Your task to perform on an android device: uninstall "Messages" Image 0: 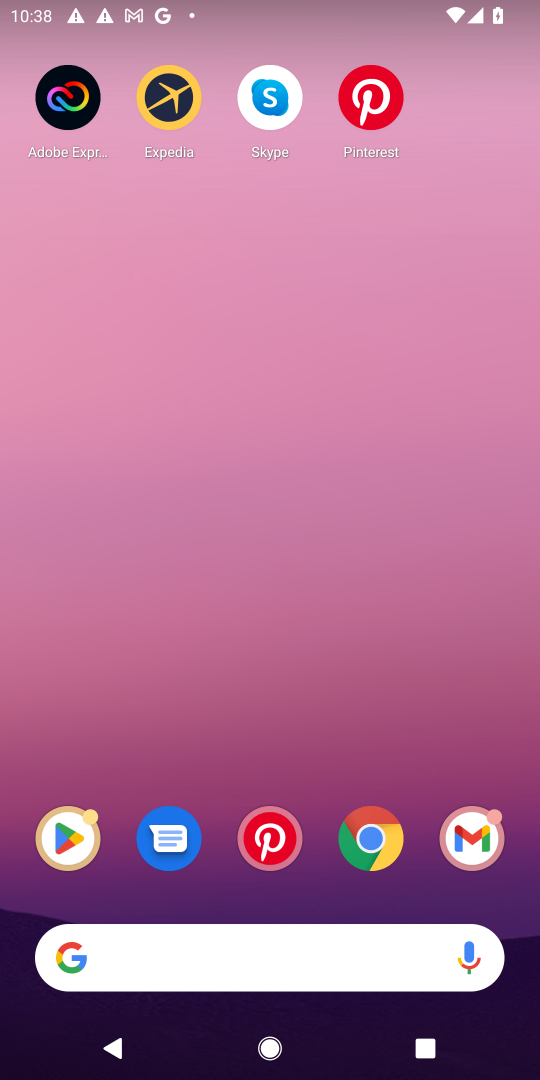
Step 0: press home button
Your task to perform on an android device: uninstall "Messages" Image 1: 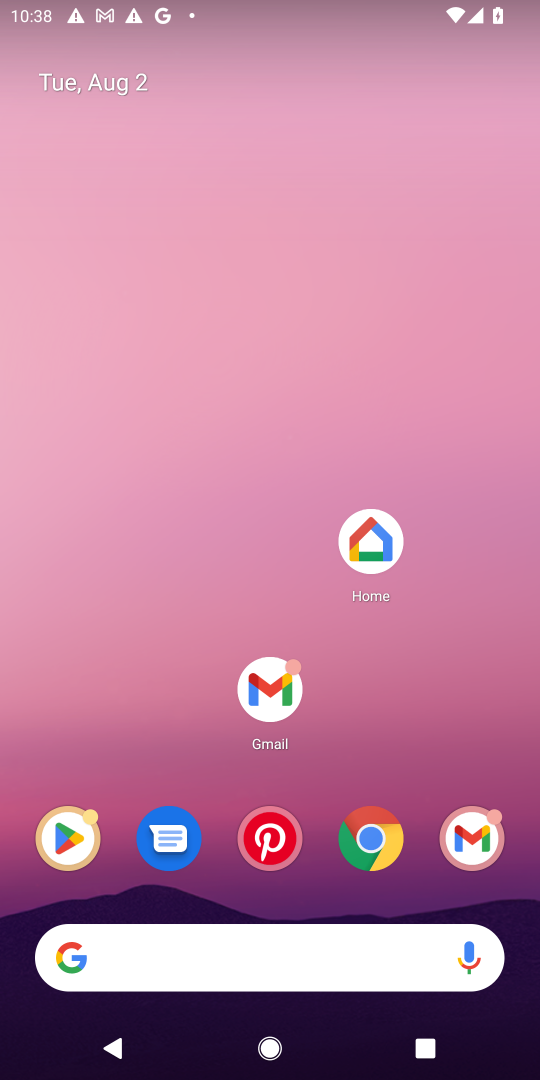
Step 1: drag from (167, 748) to (166, 71)
Your task to perform on an android device: uninstall "Messages" Image 2: 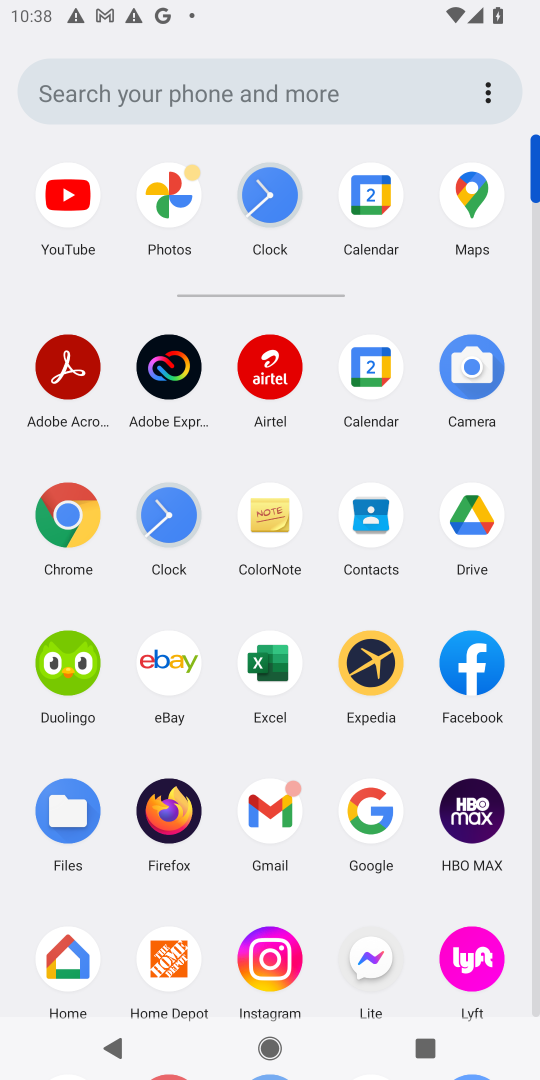
Step 2: drag from (209, 742) to (217, 375)
Your task to perform on an android device: uninstall "Messages" Image 3: 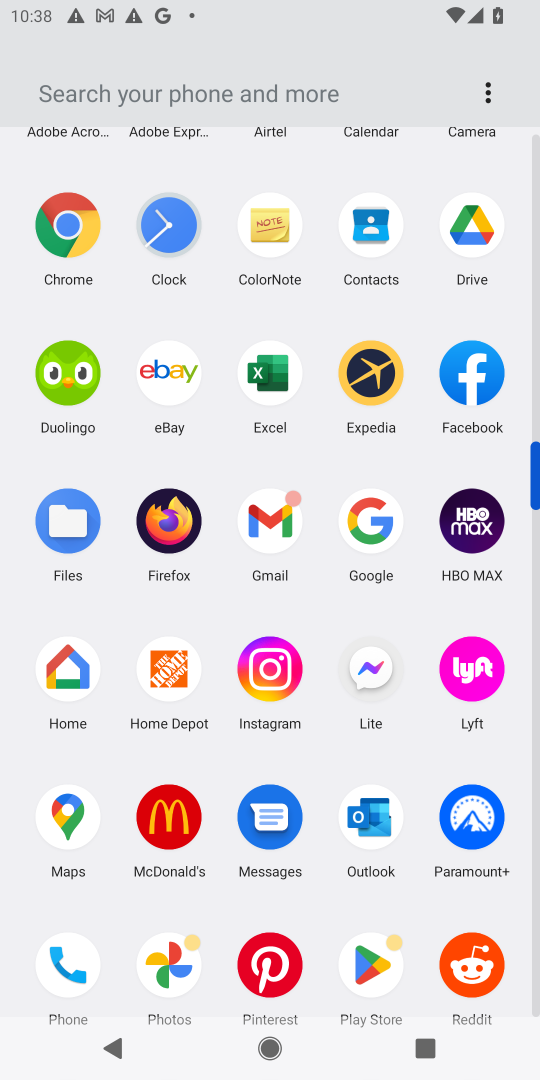
Step 3: drag from (212, 906) to (221, 576)
Your task to perform on an android device: uninstall "Messages" Image 4: 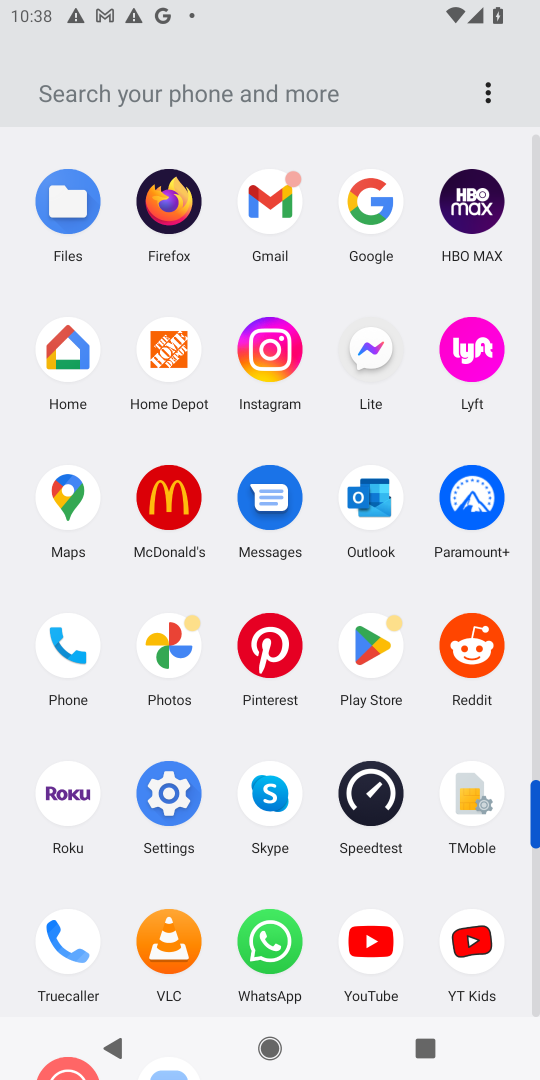
Step 4: drag from (211, 874) to (214, 581)
Your task to perform on an android device: uninstall "Messages" Image 5: 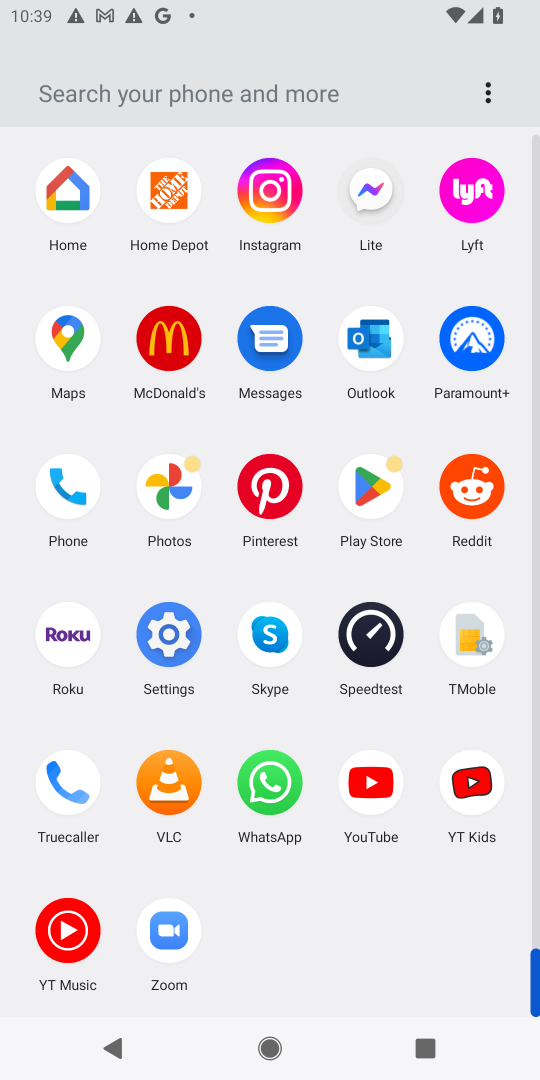
Step 5: click (369, 493)
Your task to perform on an android device: uninstall "Messages" Image 6: 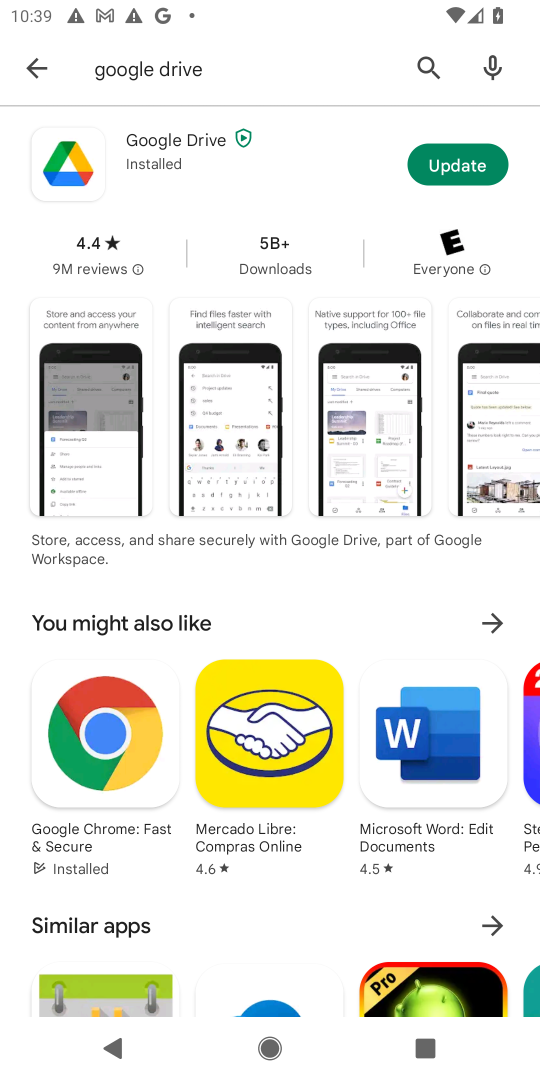
Step 6: click (421, 60)
Your task to perform on an android device: uninstall "Messages" Image 7: 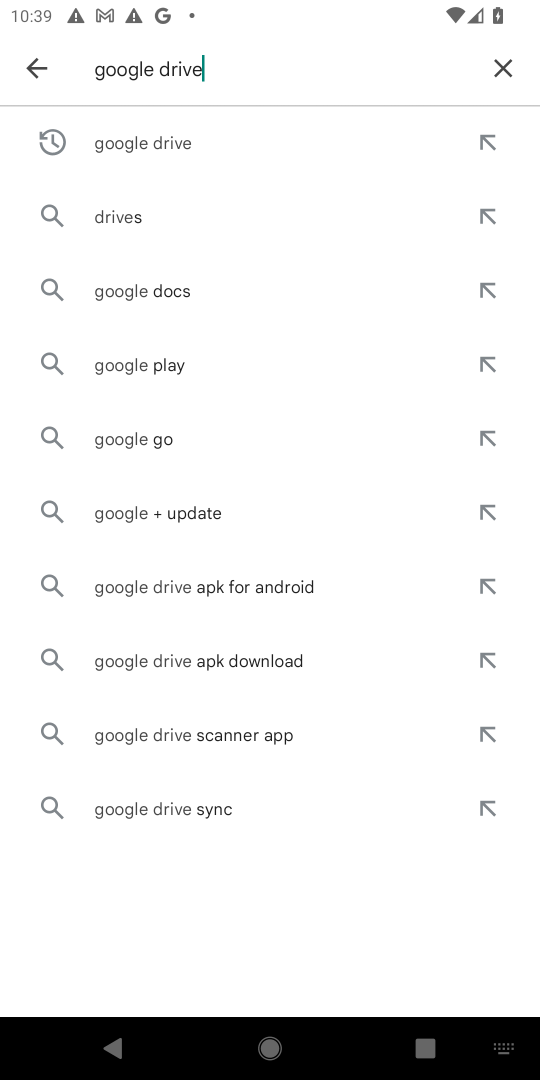
Step 7: click (509, 63)
Your task to perform on an android device: uninstall "Messages" Image 8: 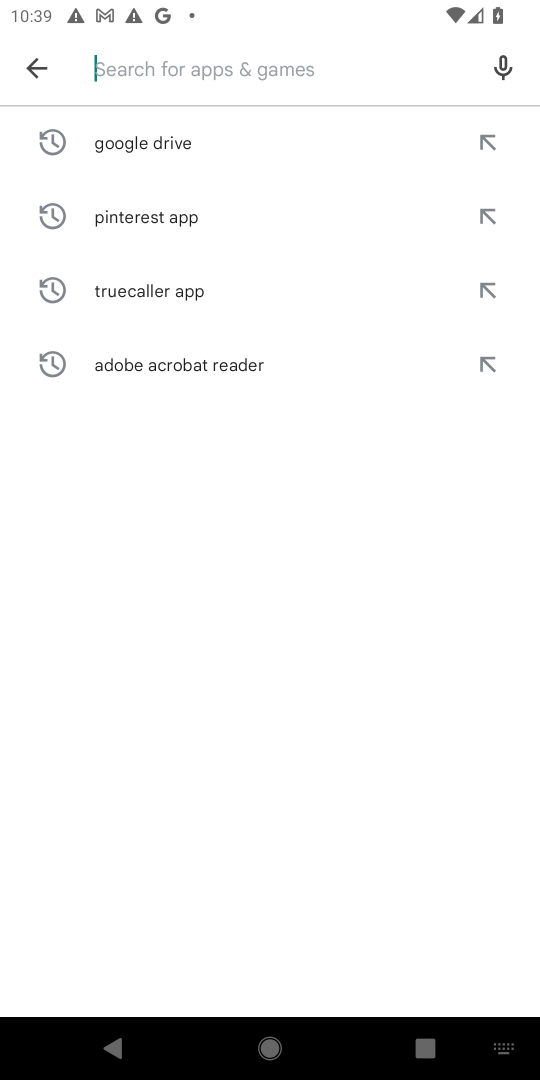
Step 8: type "messages"
Your task to perform on an android device: uninstall "Messages" Image 9: 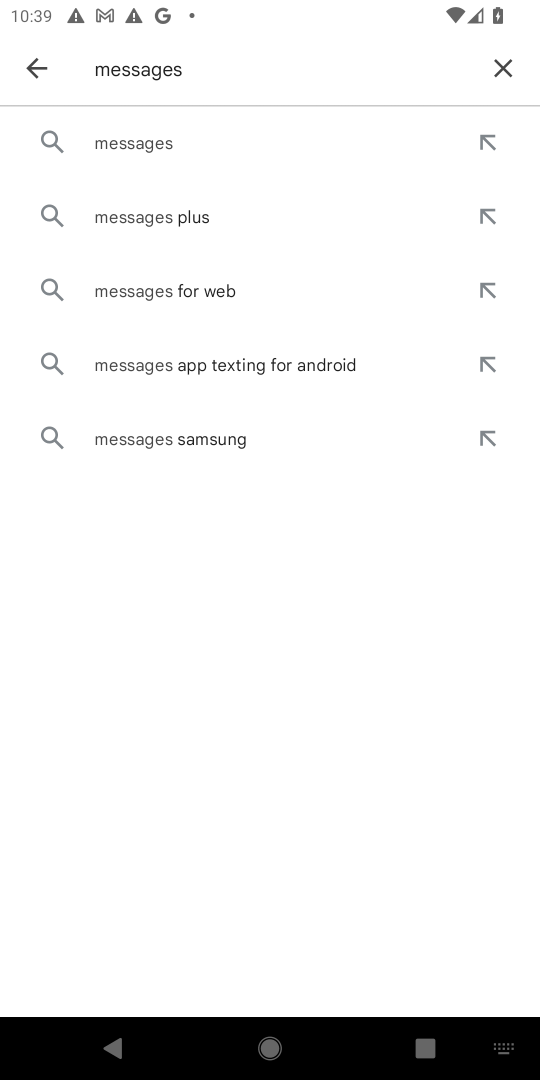
Step 9: click (204, 139)
Your task to perform on an android device: uninstall "Messages" Image 10: 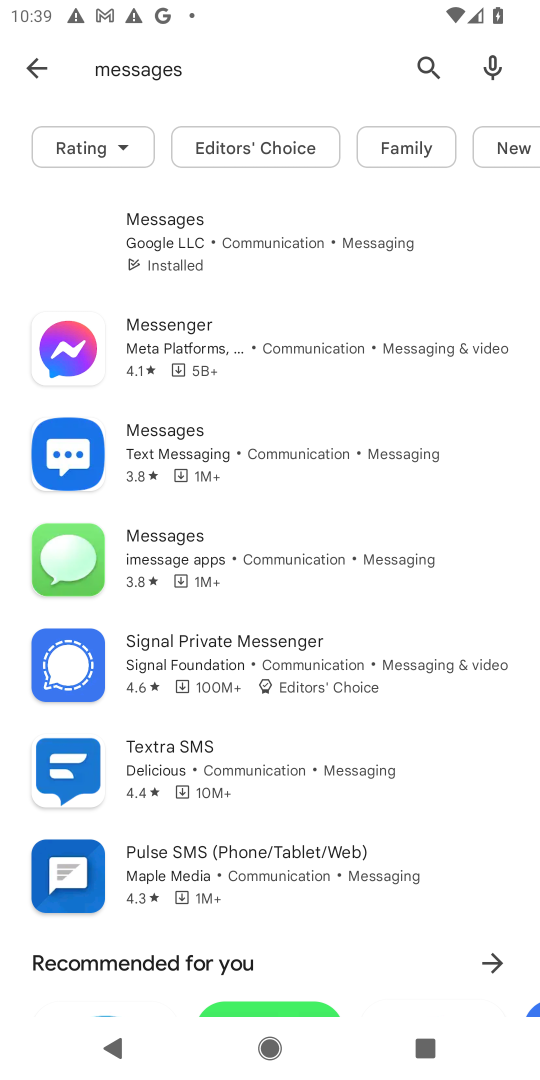
Step 10: click (283, 240)
Your task to perform on an android device: uninstall "Messages" Image 11: 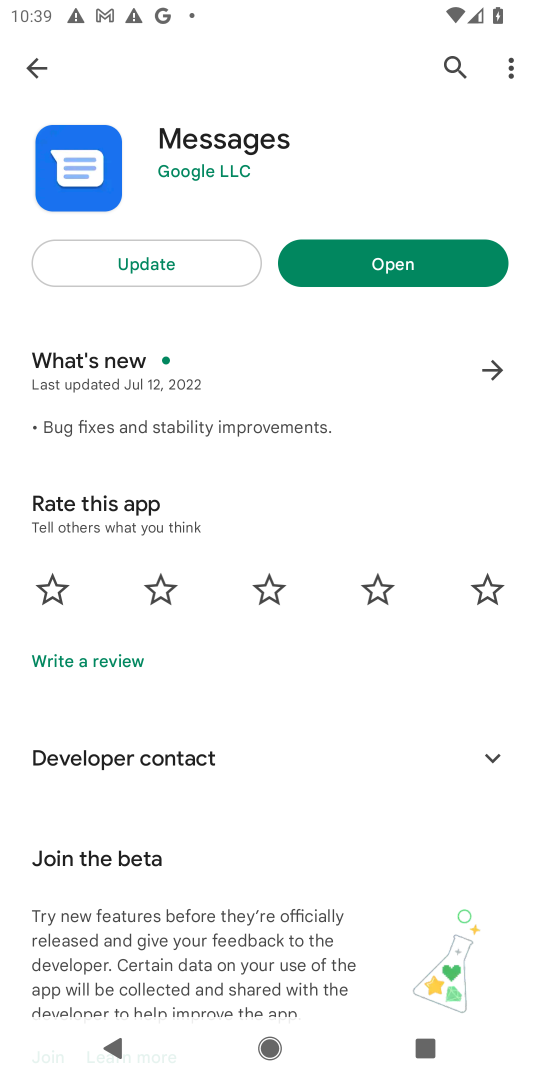
Step 11: task complete